Your task to perform on an android device: change notification settings in the gmail app Image 0: 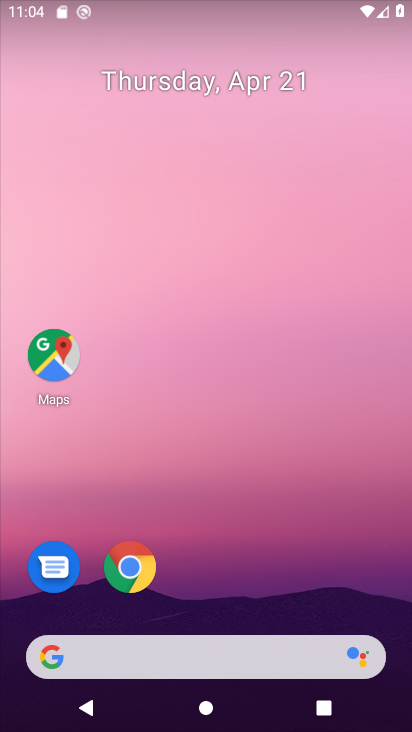
Step 0: press home button
Your task to perform on an android device: change notification settings in the gmail app Image 1: 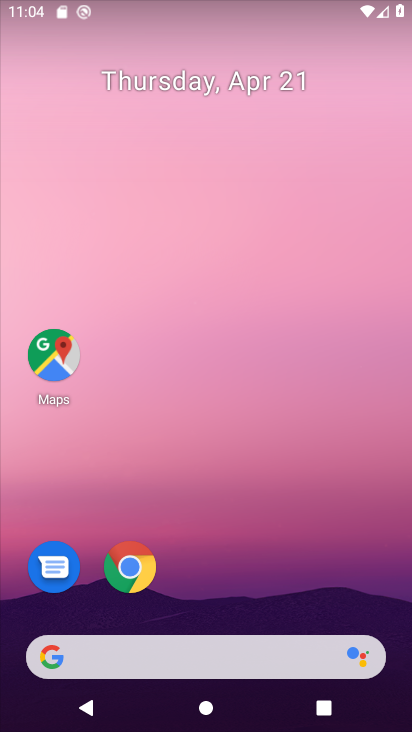
Step 1: drag from (357, 574) to (359, 151)
Your task to perform on an android device: change notification settings in the gmail app Image 2: 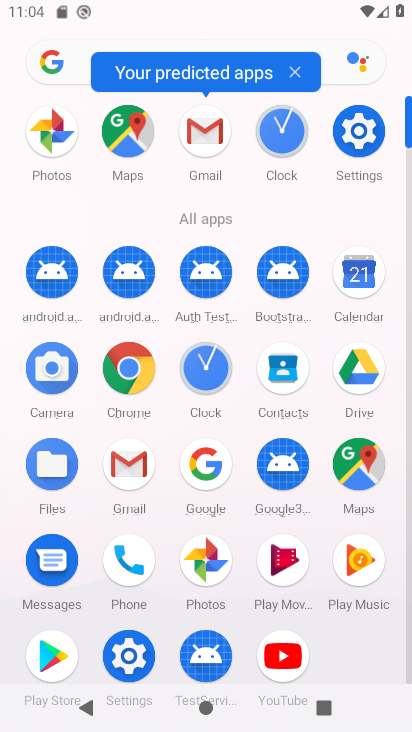
Step 2: click (133, 479)
Your task to perform on an android device: change notification settings in the gmail app Image 3: 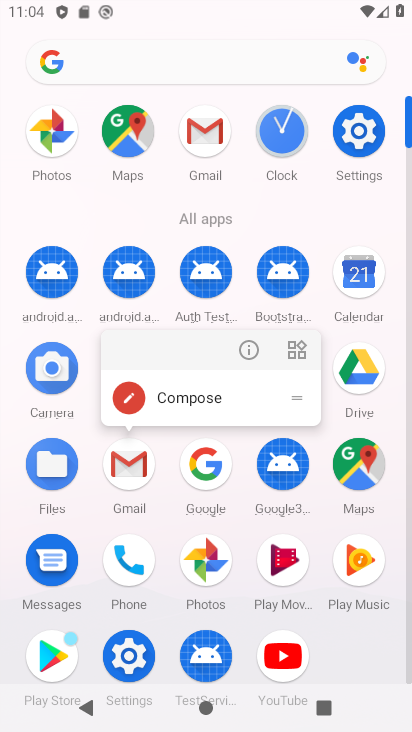
Step 3: click (139, 474)
Your task to perform on an android device: change notification settings in the gmail app Image 4: 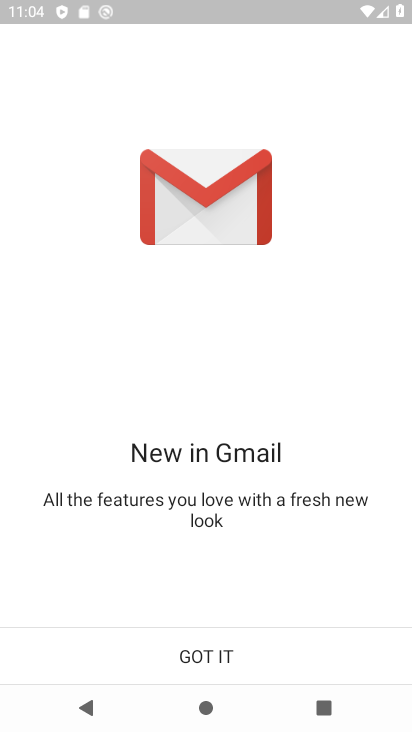
Step 4: click (206, 648)
Your task to perform on an android device: change notification settings in the gmail app Image 5: 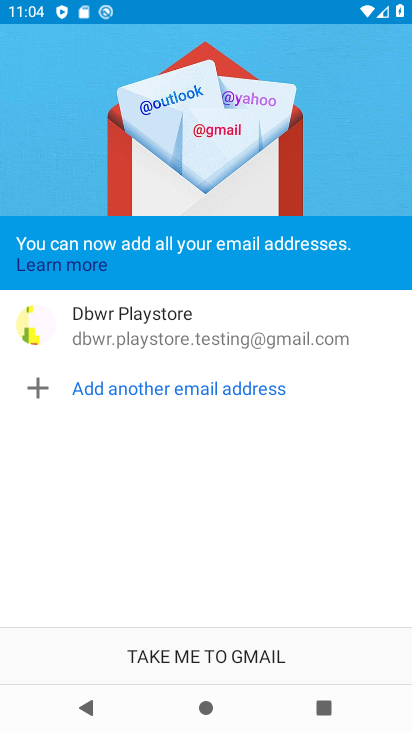
Step 5: click (207, 644)
Your task to perform on an android device: change notification settings in the gmail app Image 6: 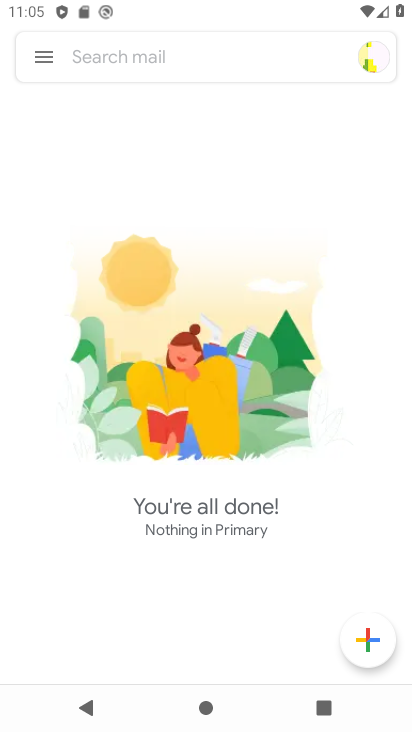
Step 6: click (39, 61)
Your task to perform on an android device: change notification settings in the gmail app Image 7: 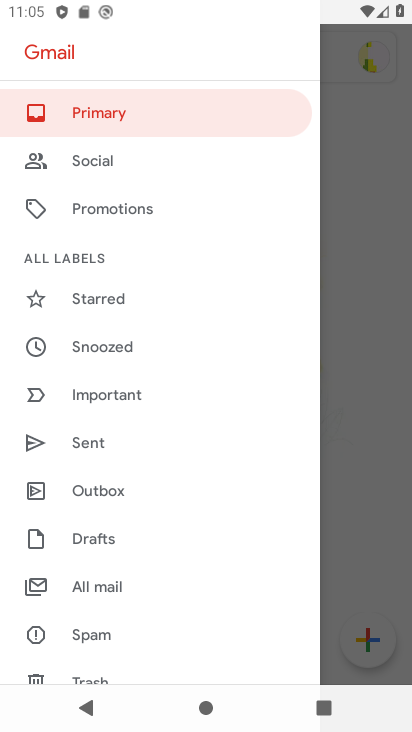
Step 7: drag from (153, 627) to (186, 327)
Your task to perform on an android device: change notification settings in the gmail app Image 8: 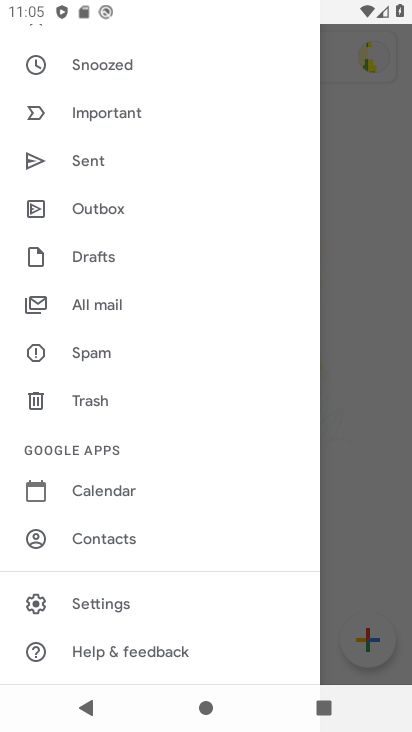
Step 8: click (128, 604)
Your task to perform on an android device: change notification settings in the gmail app Image 9: 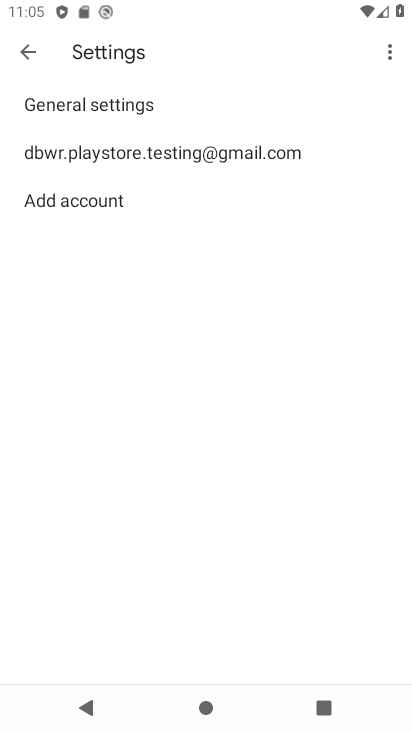
Step 9: click (187, 154)
Your task to perform on an android device: change notification settings in the gmail app Image 10: 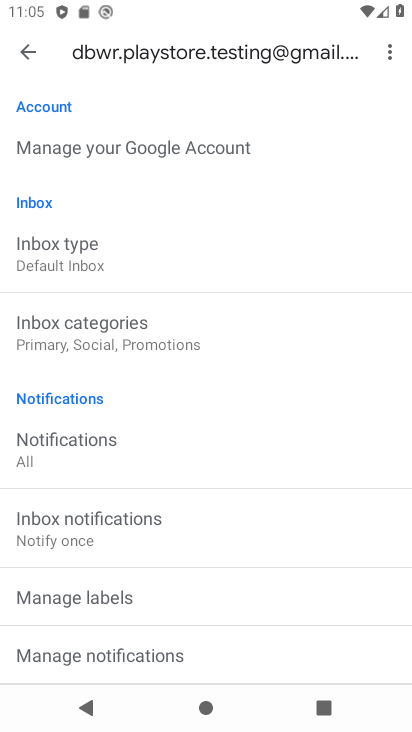
Step 10: click (83, 459)
Your task to perform on an android device: change notification settings in the gmail app Image 11: 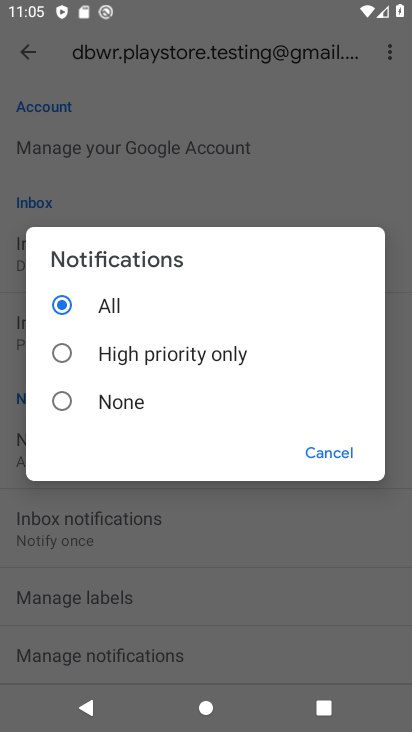
Step 11: click (131, 354)
Your task to perform on an android device: change notification settings in the gmail app Image 12: 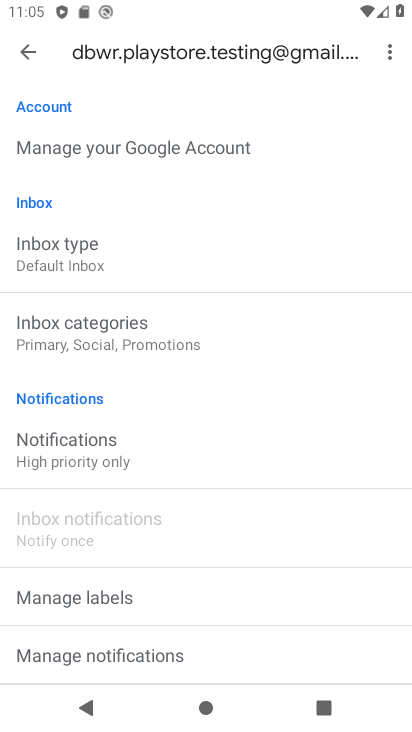
Step 12: task complete